Your task to perform on an android device: allow notifications from all sites in the chrome app Image 0: 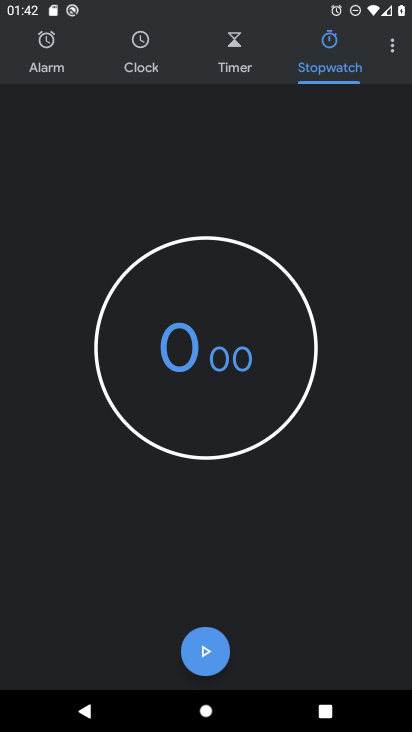
Step 0: press home button
Your task to perform on an android device: allow notifications from all sites in the chrome app Image 1: 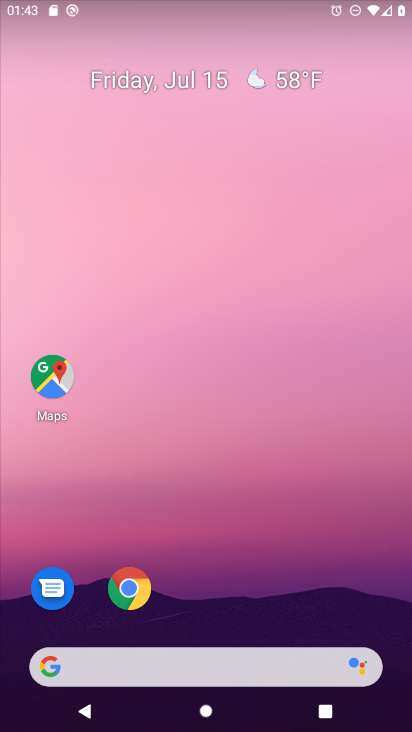
Step 1: click (131, 589)
Your task to perform on an android device: allow notifications from all sites in the chrome app Image 2: 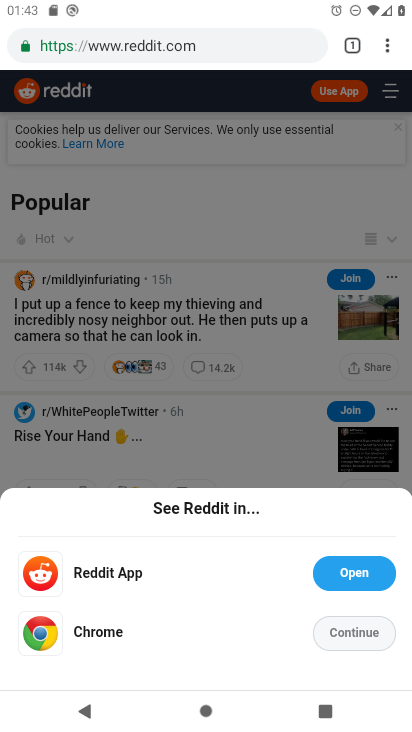
Step 2: click (387, 47)
Your task to perform on an android device: allow notifications from all sites in the chrome app Image 3: 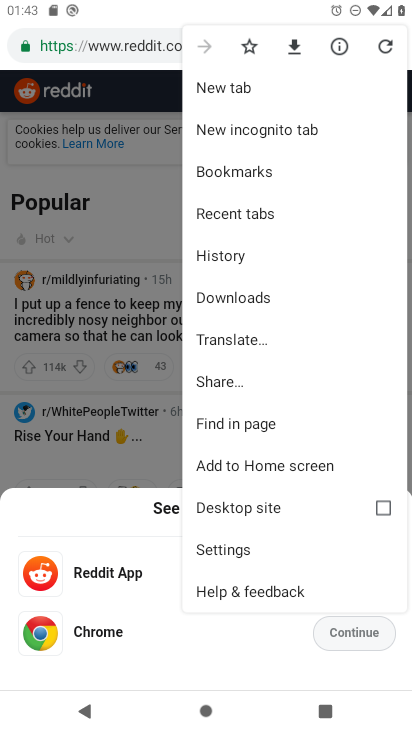
Step 3: click (232, 544)
Your task to perform on an android device: allow notifications from all sites in the chrome app Image 4: 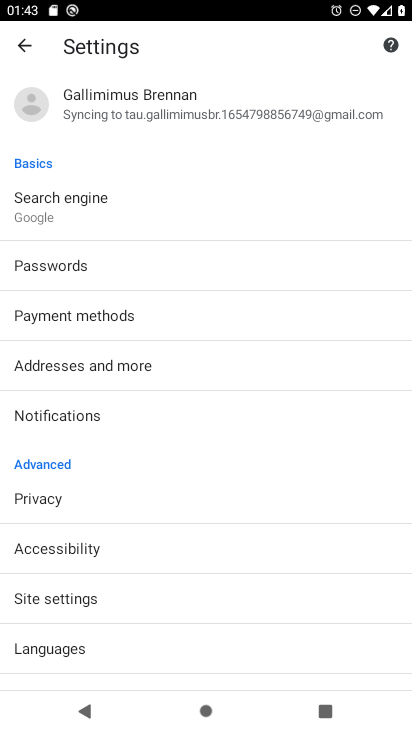
Step 4: click (49, 607)
Your task to perform on an android device: allow notifications from all sites in the chrome app Image 5: 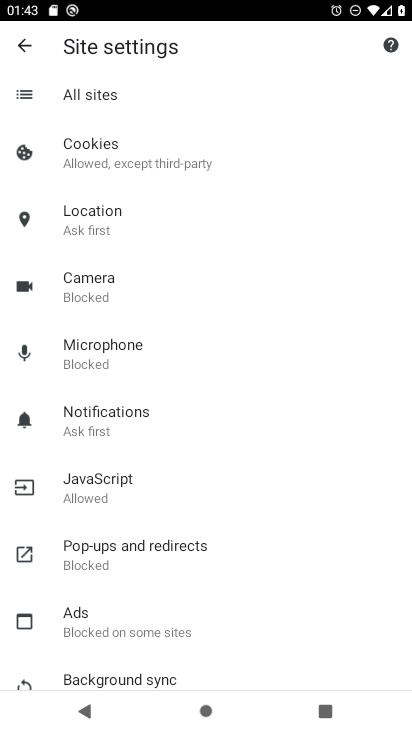
Step 5: click (82, 418)
Your task to perform on an android device: allow notifications from all sites in the chrome app Image 6: 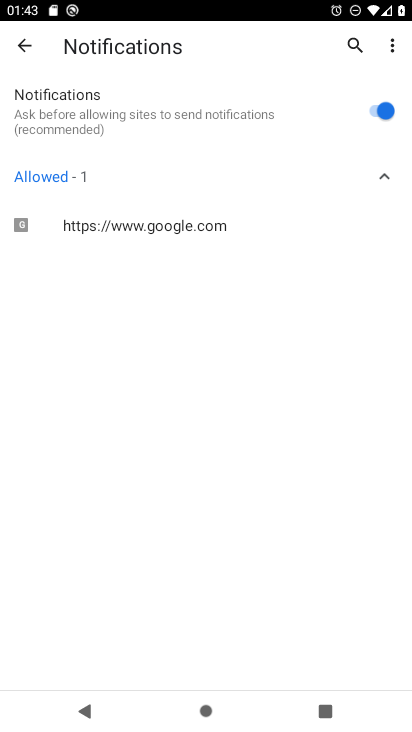
Step 6: task complete